Your task to perform on an android device: move an email to a new category in the gmail app Image 0: 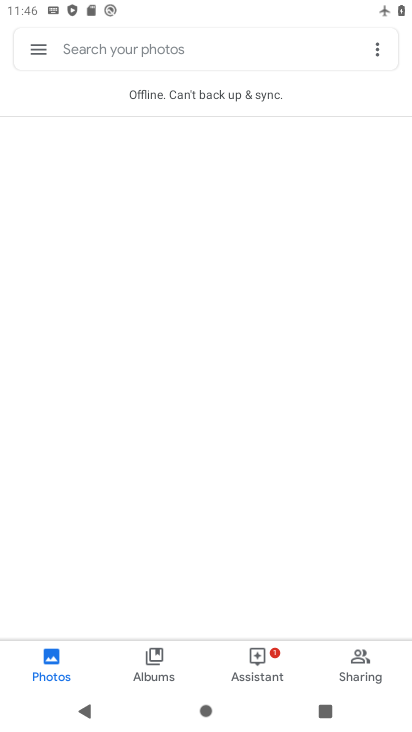
Step 0: press home button
Your task to perform on an android device: move an email to a new category in the gmail app Image 1: 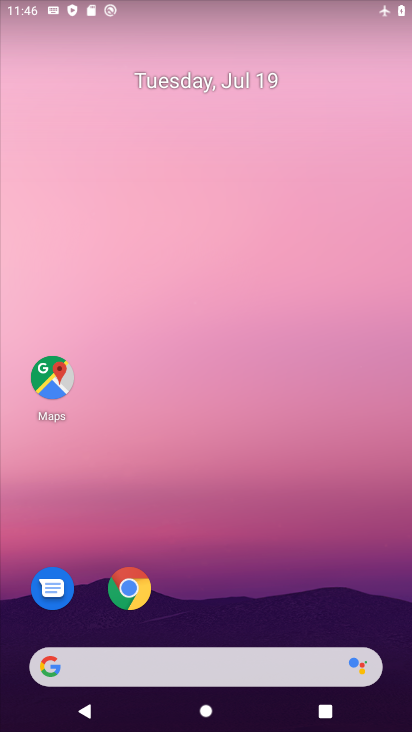
Step 1: drag from (196, 669) to (213, 249)
Your task to perform on an android device: move an email to a new category in the gmail app Image 2: 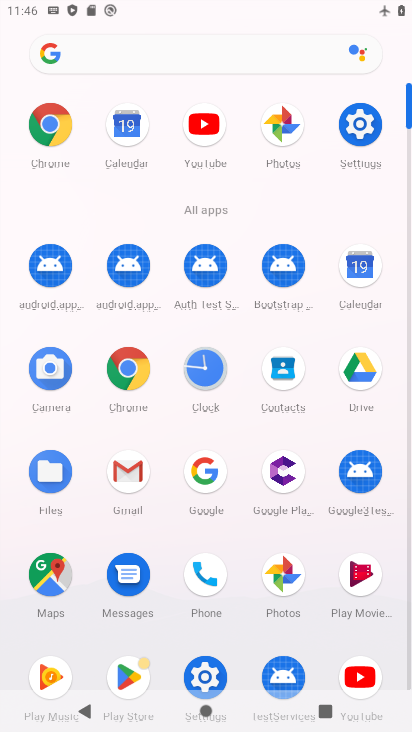
Step 2: click (124, 472)
Your task to perform on an android device: move an email to a new category in the gmail app Image 3: 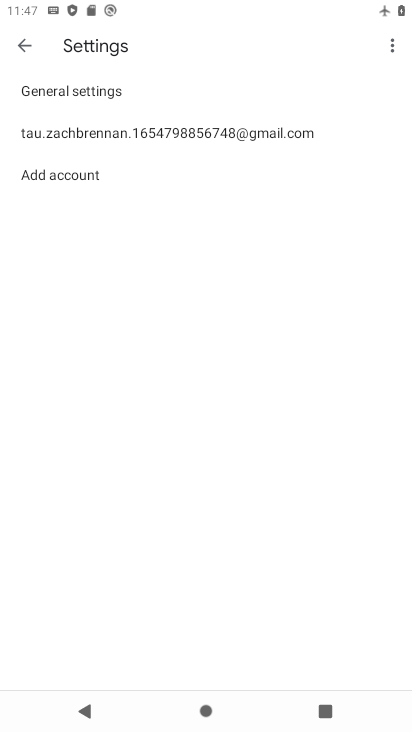
Step 3: click (23, 43)
Your task to perform on an android device: move an email to a new category in the gmail app Image 4: 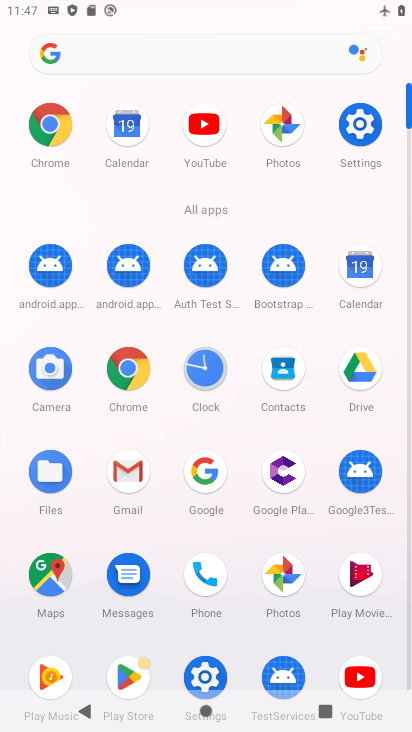
Step 4: click (127, 457)
Your task to perform on an android device: move an email to a new category in the gmail app Image 5: 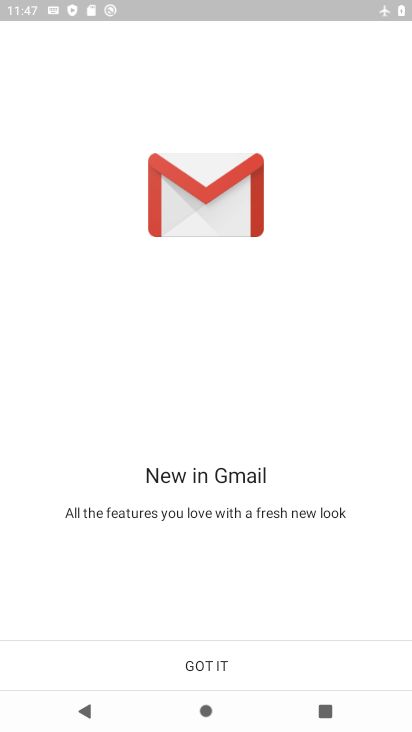
Step 5: click (213, 651)
Your task to perform on an android device: move an email to a new category in the gmail app Image 6: 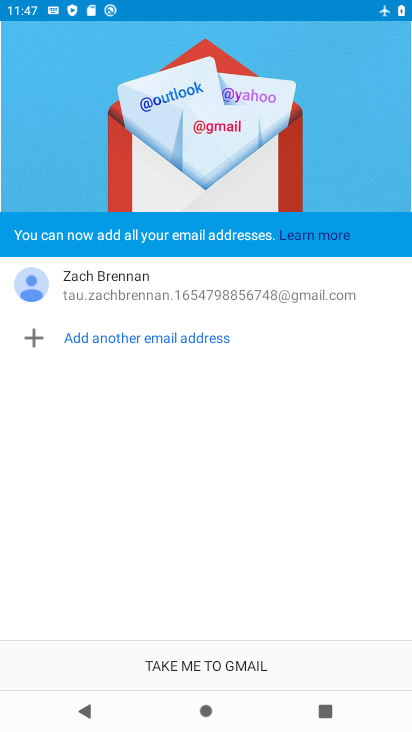
Step 6: click (222, 657)
Your task to perform on an android device: move an email to a new category in the gmail app Image 7: 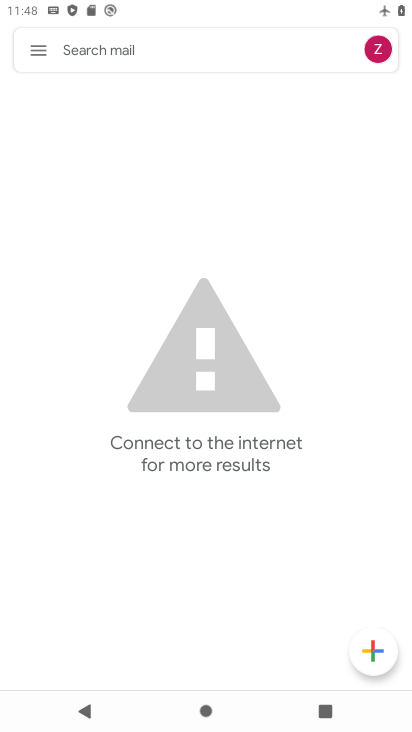
Step 7: task complete